Your task to perform on an android device: empty trash in google photos Image 0: 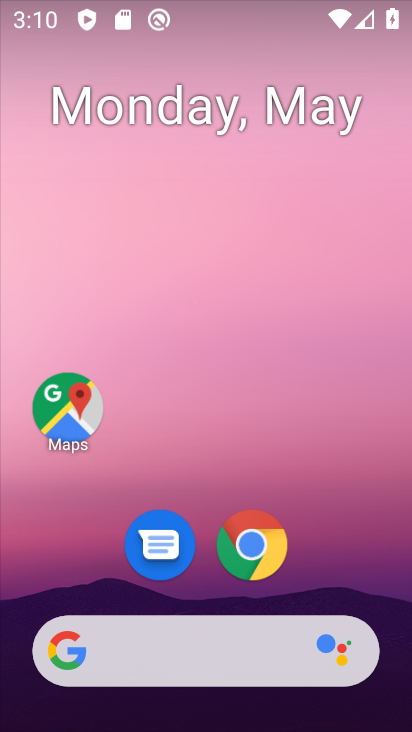
Step 0: drag from (311, 566) to (269, 81)
Your task to perform on an android device: empty trash in google photos Image 1: 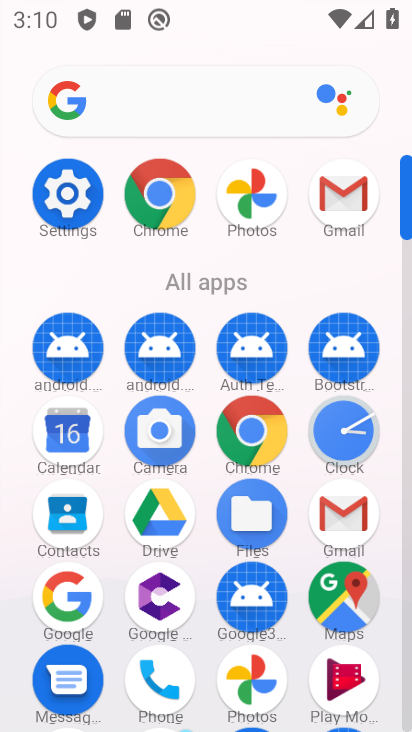
Step 1: click (255, 683)
Your task to perform on an android device: empty trash in google photos Image 2: 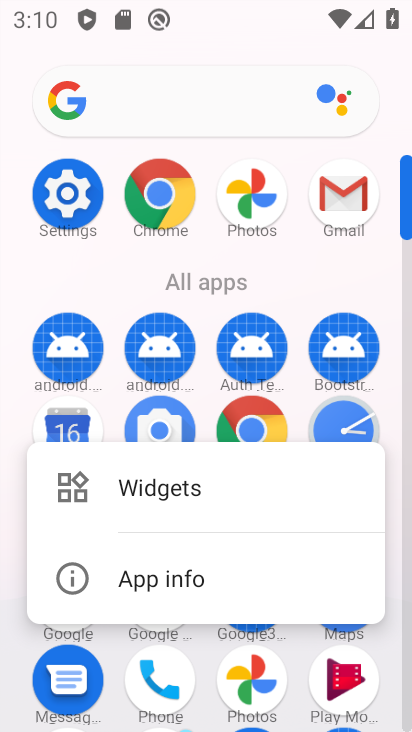
Step 2: click (245, 687)
Your task to perform on an android device: empty trash in google photos Image 3: 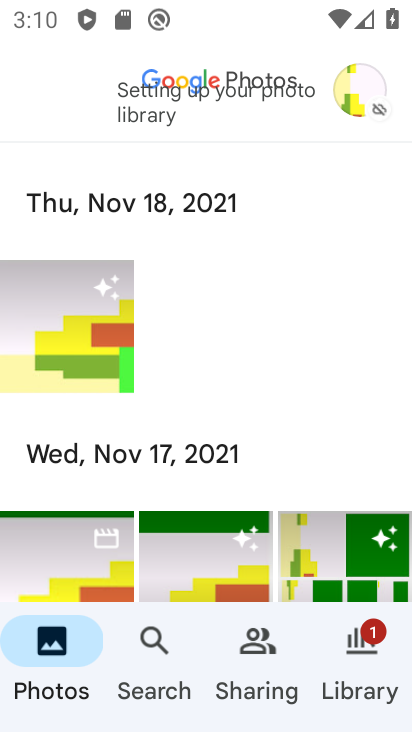
Step 3: click (373, 631)
Your task to perform on an android device: empty trash in google photos Image 4: 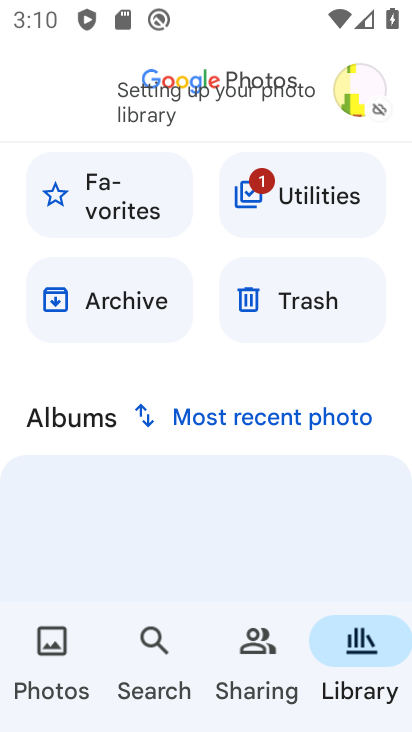
Step 4: click (320, 308)
Your task to perform on an android device: empty trash in google photos Image 5: 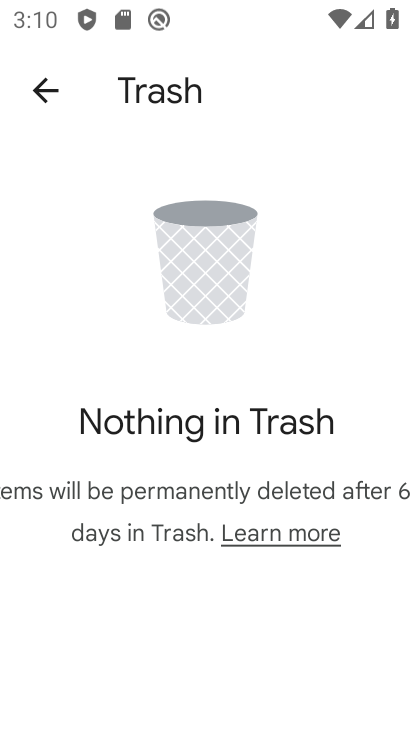
Step 5: task complete